Your task to perform on an android device: turn on sleep mode Image 0: 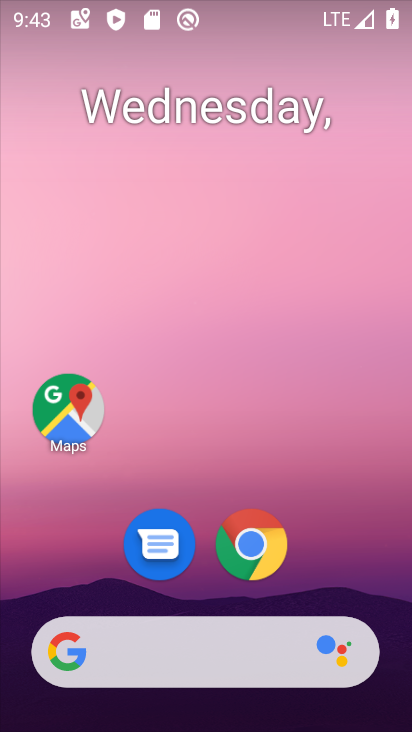
Step 0: drag from (205, 573) to (407, 5)
Your task to perform on an android device: turn on sleep mode Image 1: 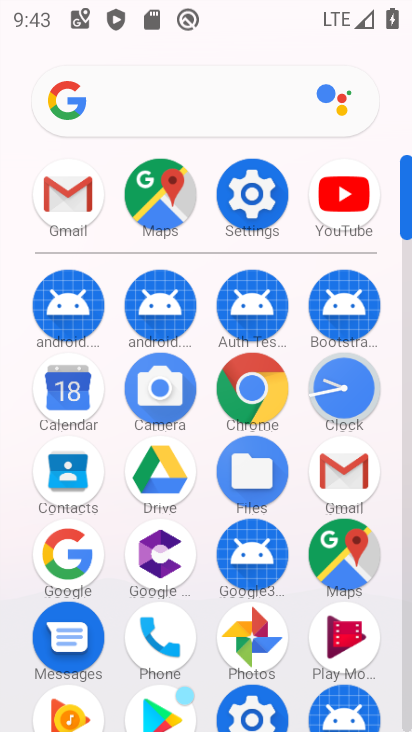
Step 1: click (259, 168)
Your task to perform on an android device: turn on sleep mode Image 2: 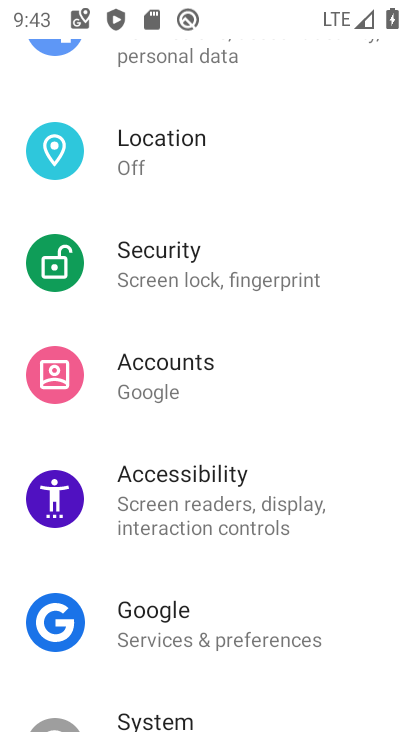
Step 2: click (259, 168)
Your task to perform on an android device: turn on sleep mode Image 3: 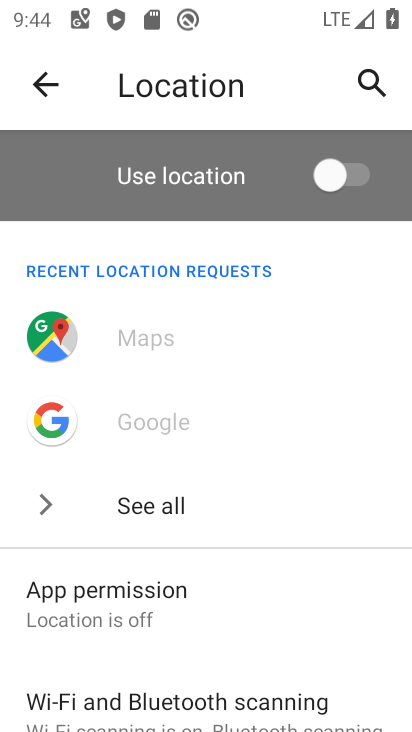
Step 3: task complete